Your task to perform on an android device: change the clock display to analog Image 0: 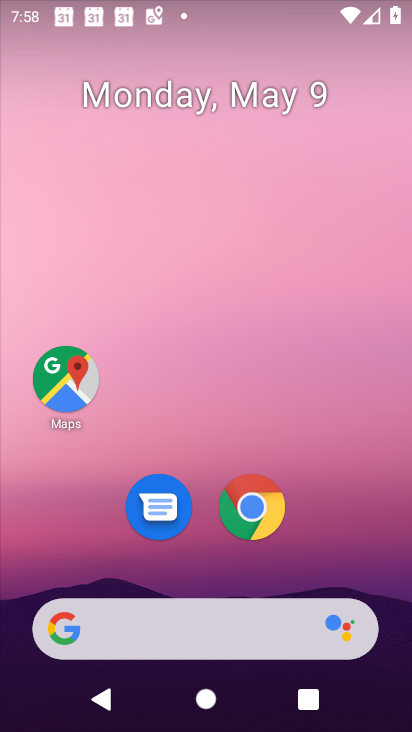
Step 0: drag from (248, 662) to (270, 91)
Your task to perform on an android device: change the clock display to analog Image 1: 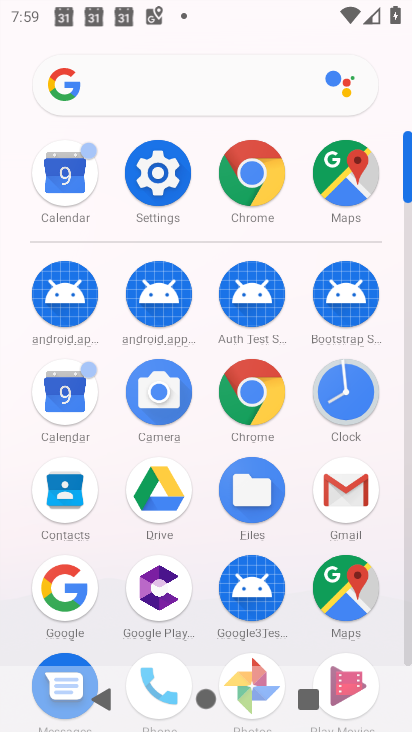
Step 1: click (184, 159)
Your task to perform on an android device: change the clock display to analog Image 2: 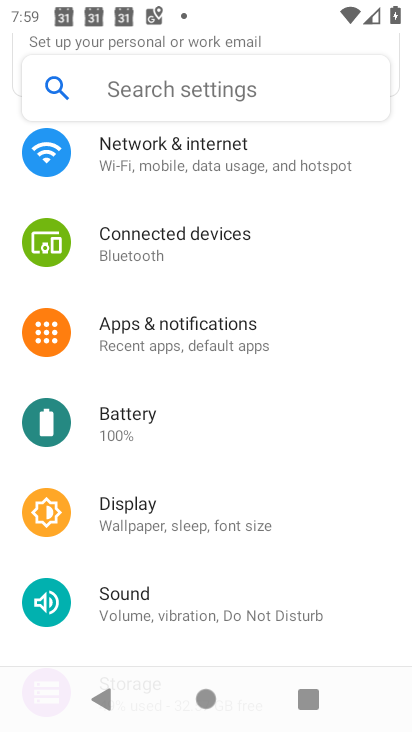
Step 2: press home button
Your task to perform on an android device: change the clock display to analog Image 3: 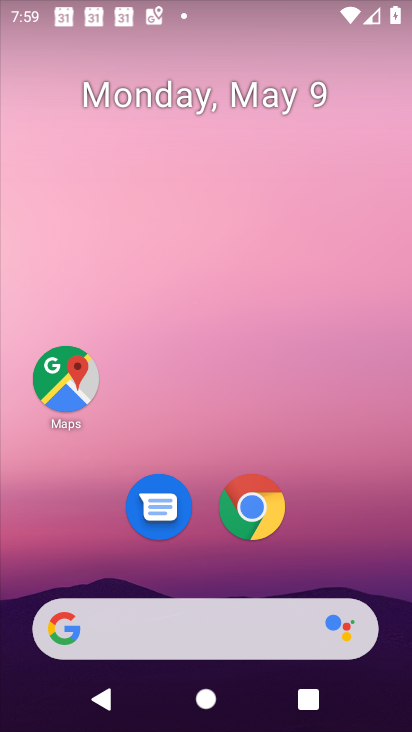
Step 3: drag from (253, 648) to (323, 163)
Your task to perform on an android device: change the clock display to analog Image 4: 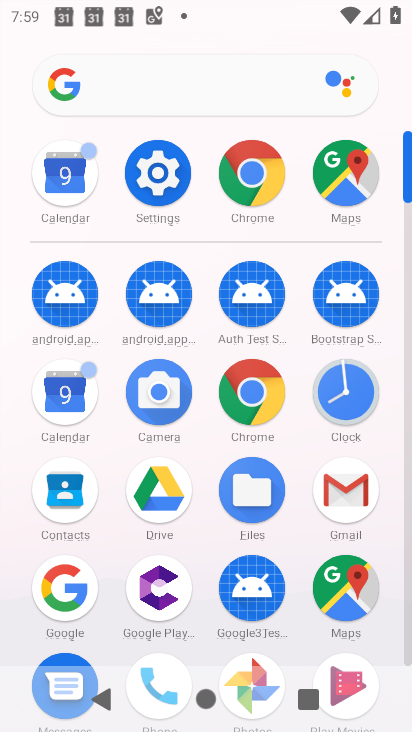
Step 4: click (344, 380)
Your task to perform on an android device: change the clock display to analog Image 5: 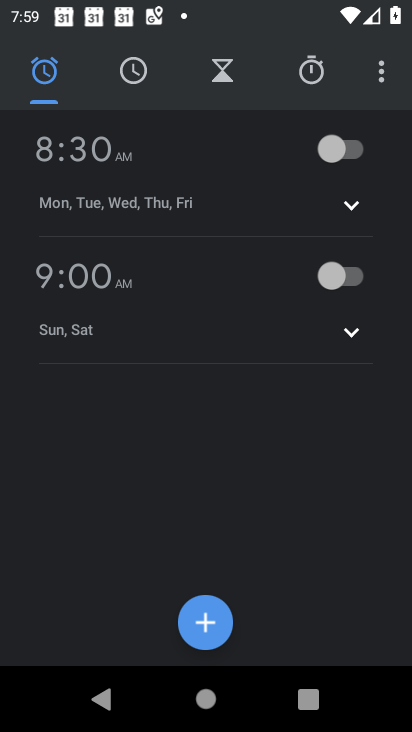
Step 5: click (384, 75)
Your task to perform on an android device: change the clock display to analog Image 6: 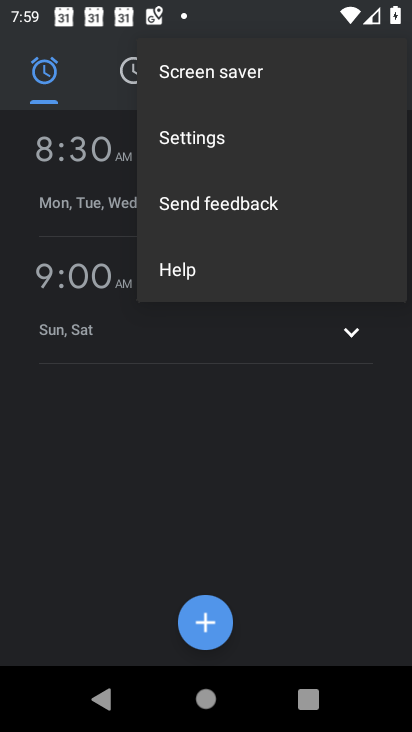
Step 6: click (223, 153)
Your task to perform on an android device: change the clock display to analog Image 7: 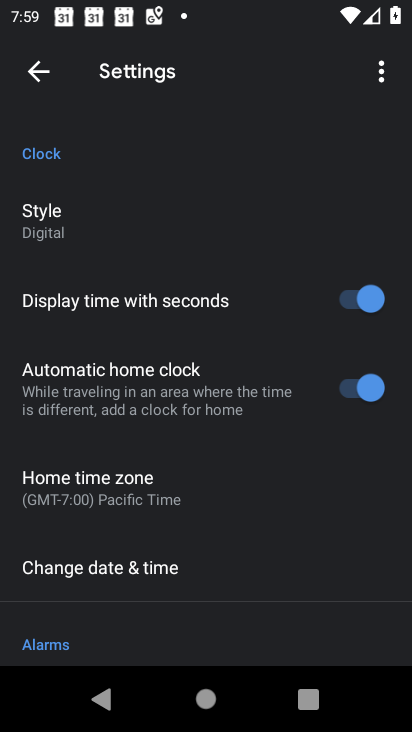
Step 7: click (130, 234)
Your task to perform on an android device: change the clock display to analog Image 8: 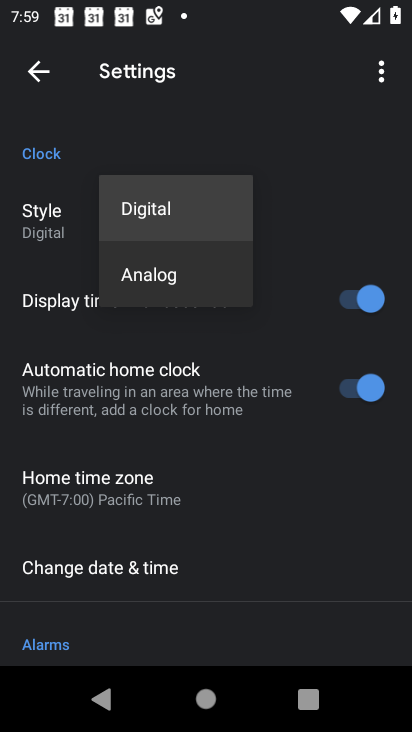
Step 8: click (154, 274)
Your task to perform on an android device: change the clock display to analog Image 9: 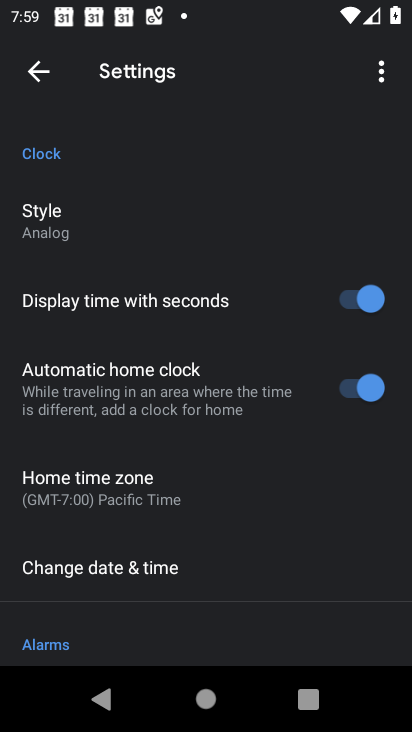
Step 9: task complete